Your task to perform on an android device: Open wifi settings Image 0: 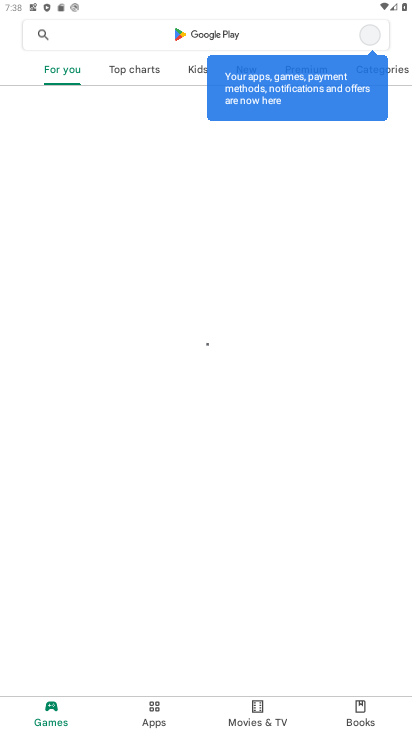
Step 0: press home button
Your task to perform on an android device: Open wifi settings Image 1: 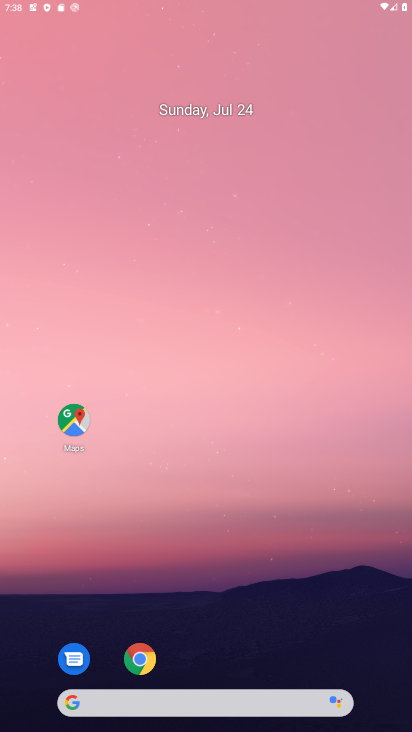
Step 1: drag from (270, 656) to (135, 91)
Your task to perform on an android device: Open wifi settings Image 2: 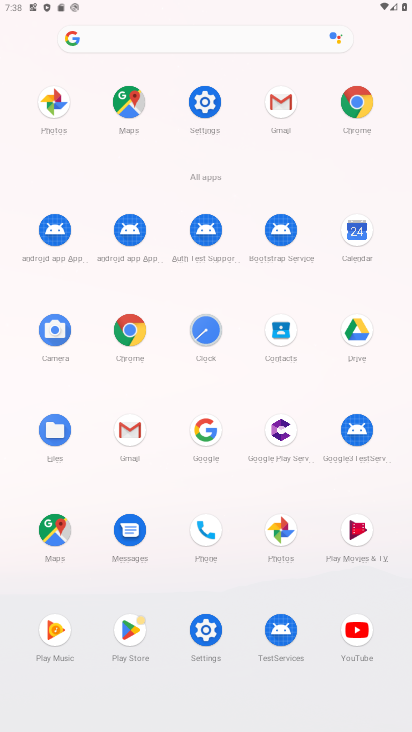
Step 2: click (208, 86)
Your task to perform on an android device: Open wifi settings Image 3: 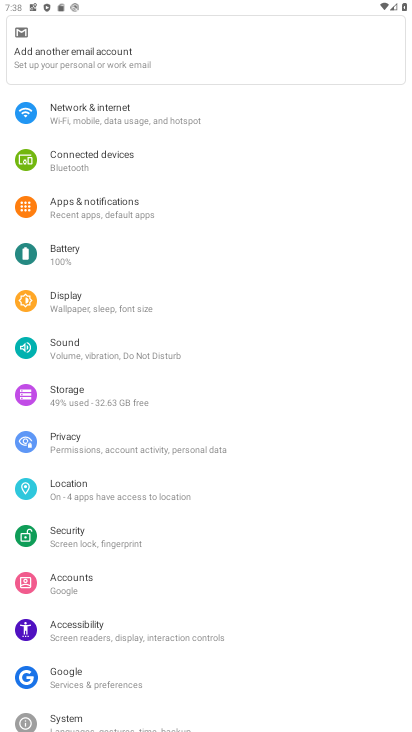
Step 3: click (65, 123)
Your task to perform on an android device: Open wifi settings Image 4: 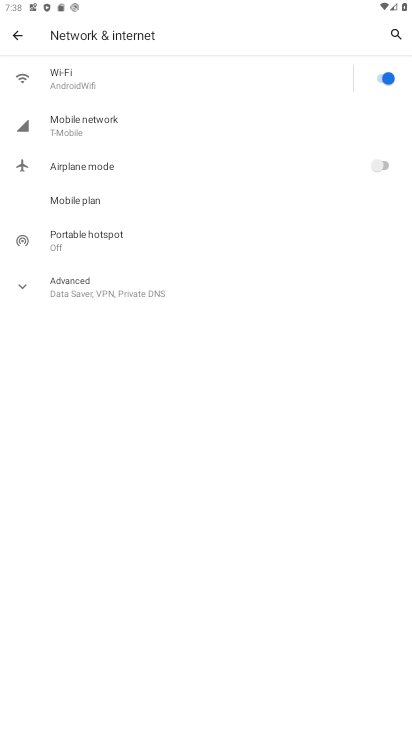
Step 4: click (110, 75)
Your task to perform on an android device: Open wifi settings Image 5: 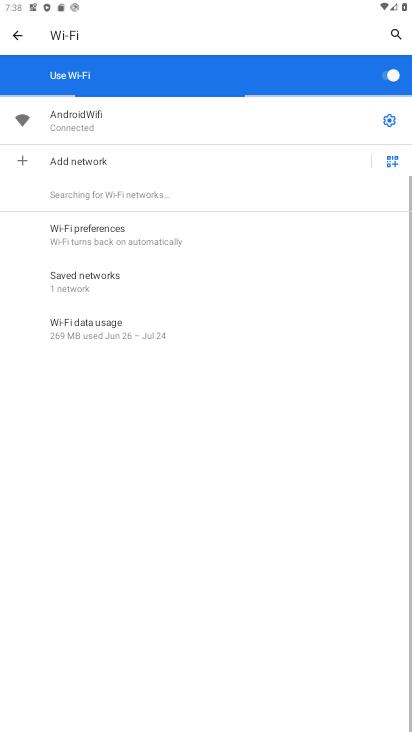
Step 5: click (387, 123)
Your task to perform on an android device: Open wifi settings Image 6: 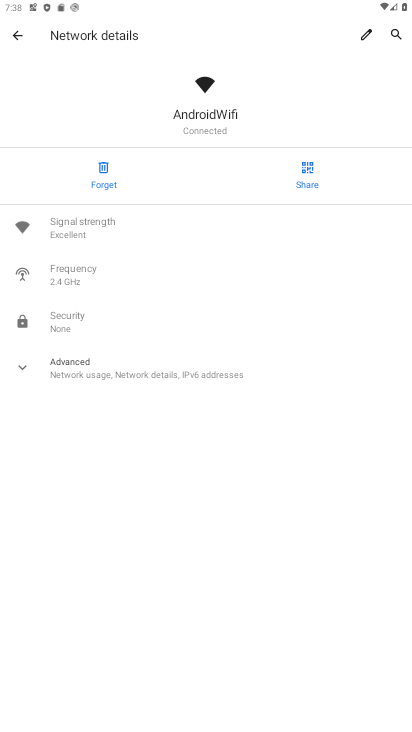
Step 6: task complete